Your task to perform on an android device: change alarm snooze length Image 0: 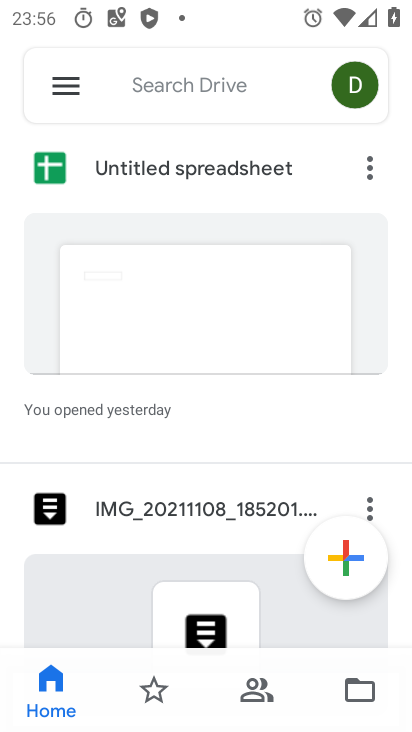
Step 0: press home button
Your task to perform on an android device: change alarm snooze length Image 1: 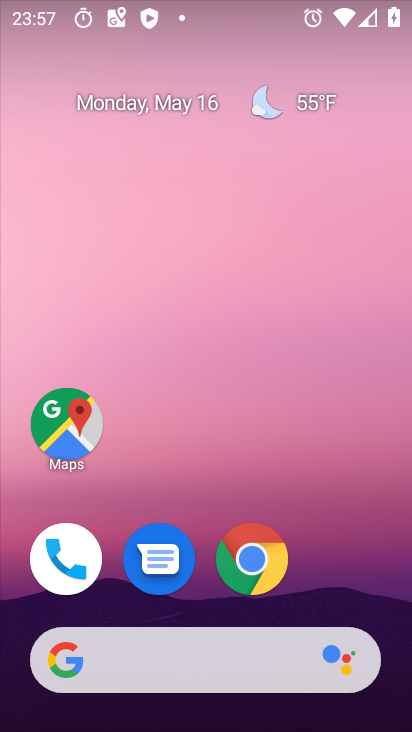
Step 1: drag from (347, 561) to (339, 111)
Your task to perform on an android device: change alarm snooze length Image 2: 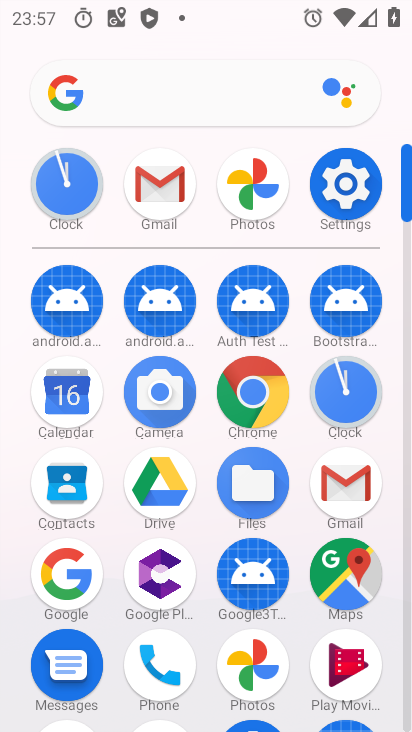
Step 2: click (56, 182)
Your task to perform on an android device: change alarm snooze length Image 3: 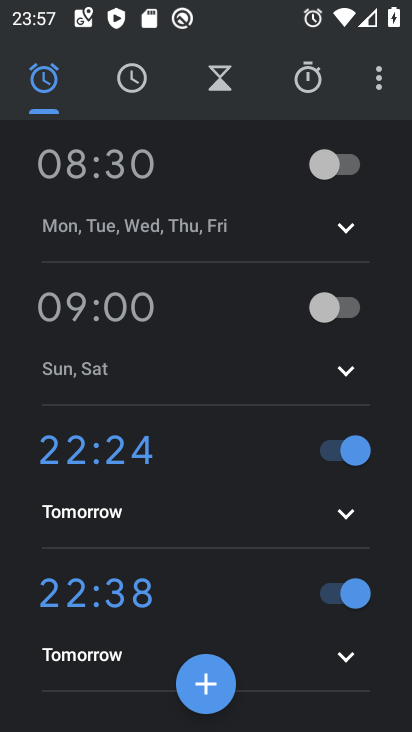
Step 3: click (381, 82)
Your task to perform on an android device: change alarm snooze length Image 4: 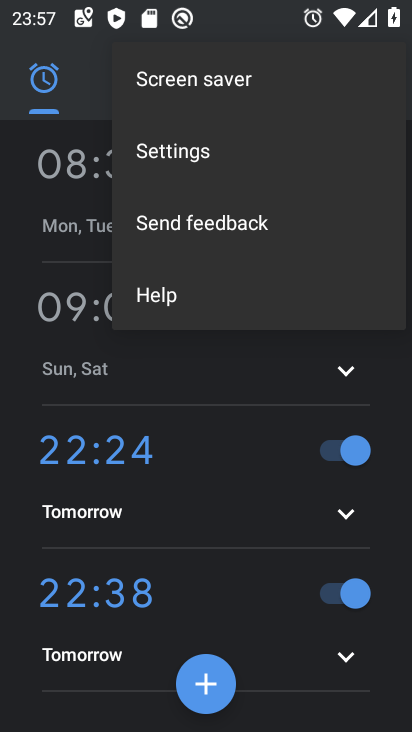
Step 4: click (201, 146)
Your task to perform on an android device: change alarm snooze length Image 5: 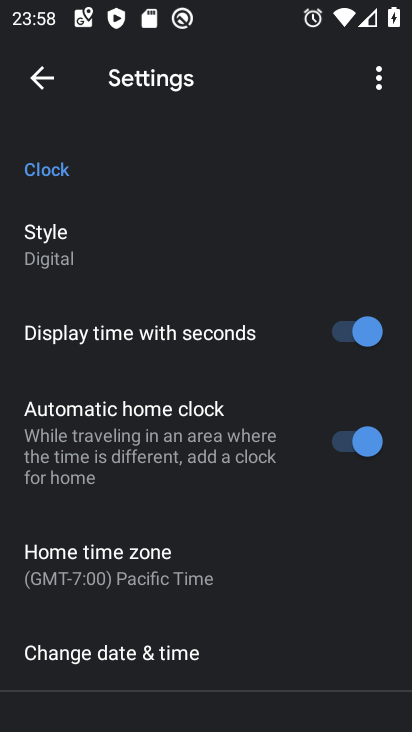
Step 5: drag from (226, 551) to (307, 55)
Your task to perform on an android device: change alarm snooze length Image 6: 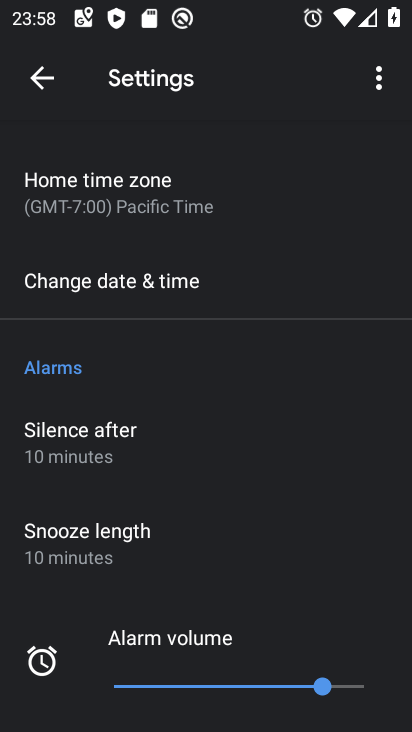
Step 6: click (120, 544)
Your task to perform on an android device: change alarm snooze length Image 7: 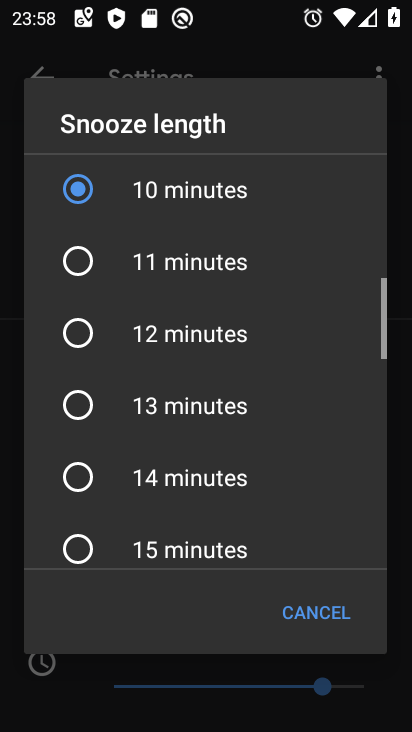
Step 7: click (227, 257)
Your task to perform on an android device: change alarm snooze length Image 8: 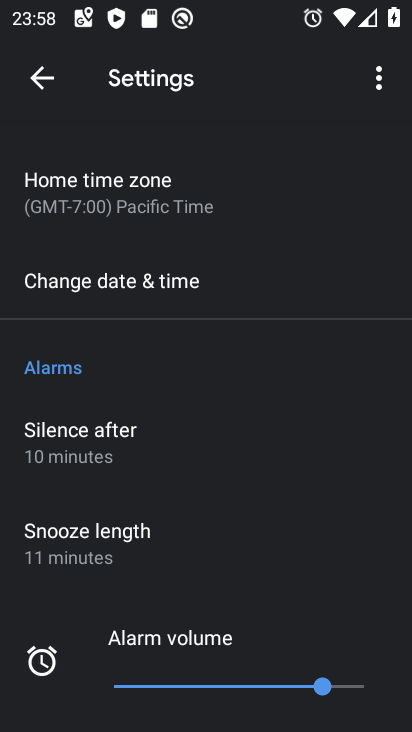
Step 8: task complete